Your task to perform on an android device: Go to Google maps Image 0: 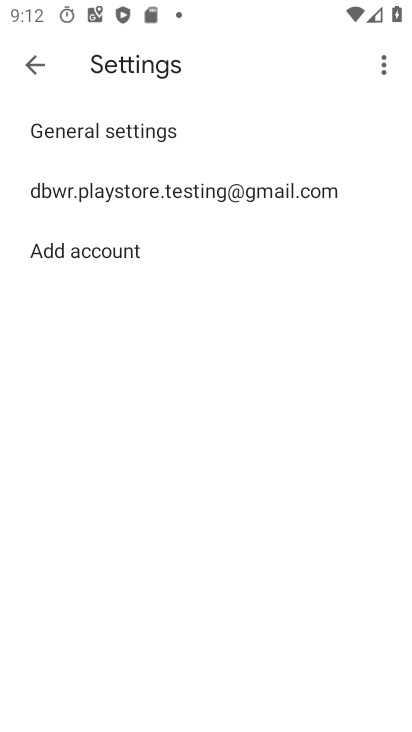
Step 0: press home button
Your task to perform on an android device: Go to Google maps Image 1: 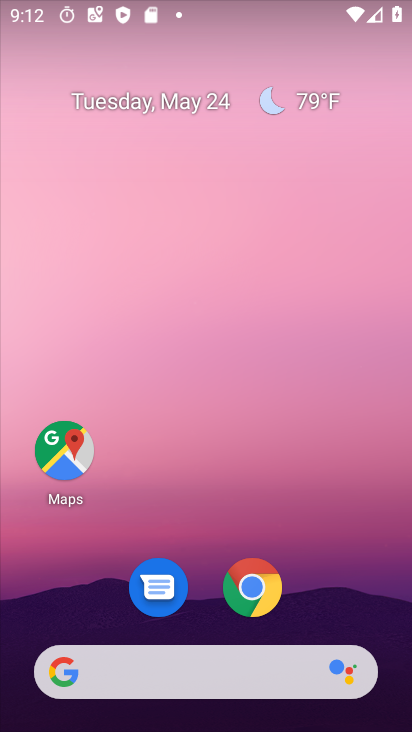
Step 1: click (62, 452)
Your task to perform on an android device: Go to Google maps Image 2: 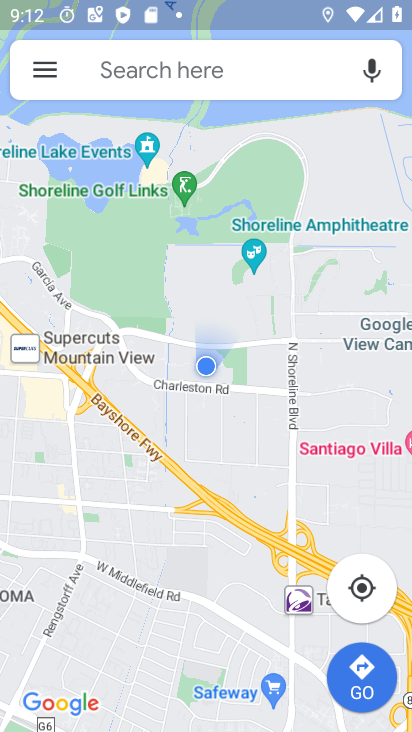
Step 2: task complete